Your task to perform on an android device: Turn off the flashlight Image 0: 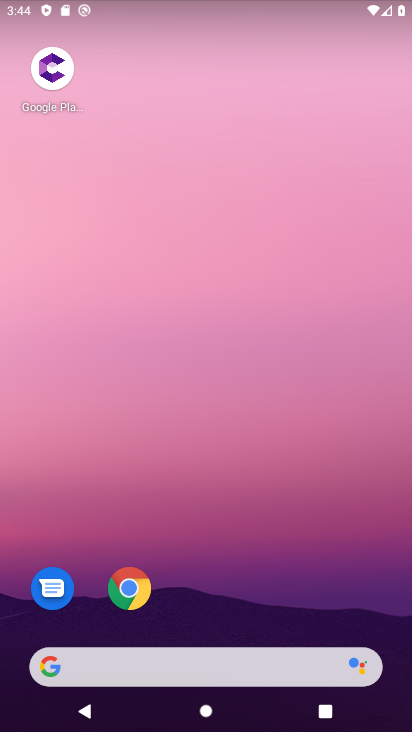
Step 0: drag from (253, 582) to (318, 0)
Your task to perform on an android device: Turn off the flashlight Image 1: 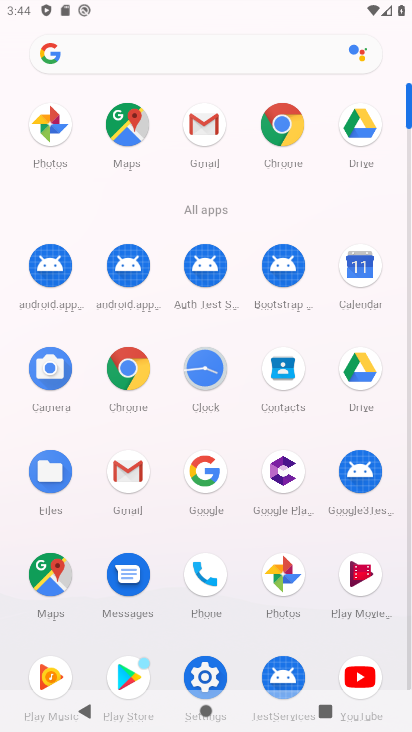
Step 1: click (201, 680)
Your task to perform on an android device: Turn off the flashlight Image 2: 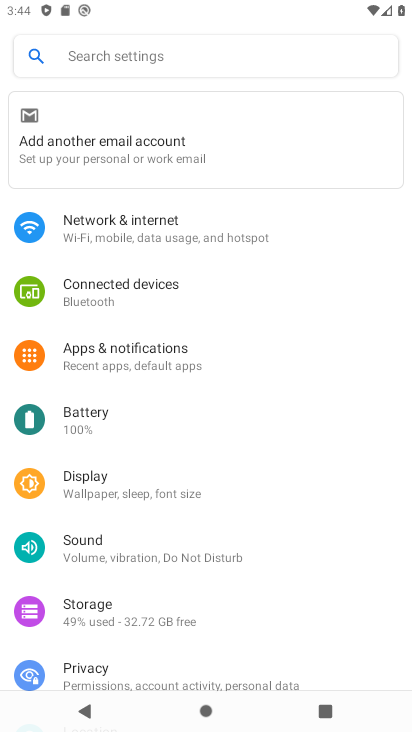
Step 2: task complete